Your task to perform on an android device: Turn off the flashlight Image 0: 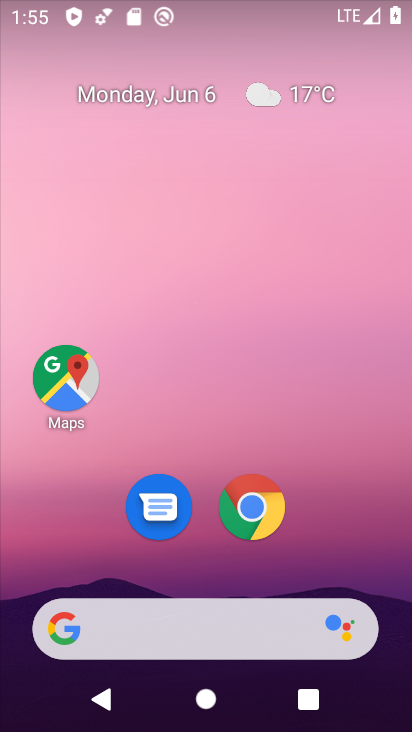
Step 0: drag from (306, 5) to (361, 521)
Your task to perform on an android device: Turn off the flashlight Image 1: 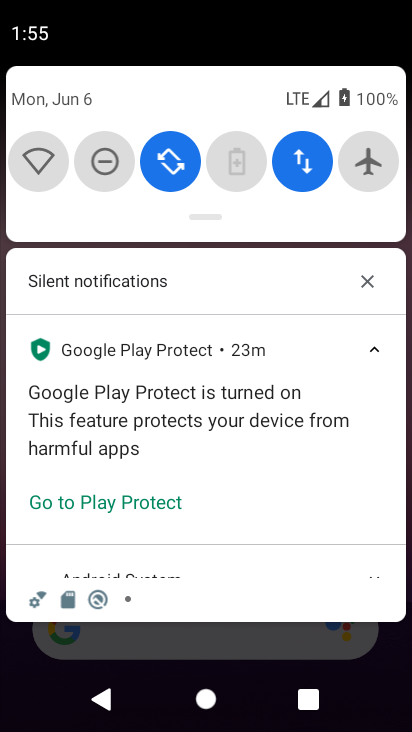
Step 1: drag from (262, 203) to (298, 569)
Your task to perform on an android device: Turn off the flashlight Image 2: 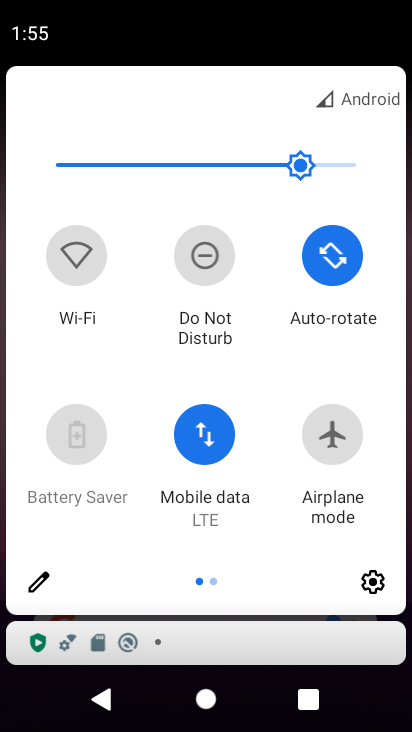
Step 2: click (52, 578)
Your task to perform on an android device: Turn off the flashlight Image 3: 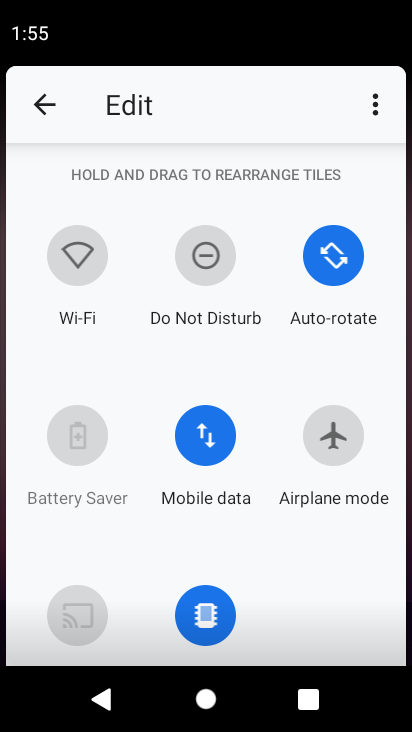
Step 3: task complete